Your task to perform on an android device: Open maps Image 0: 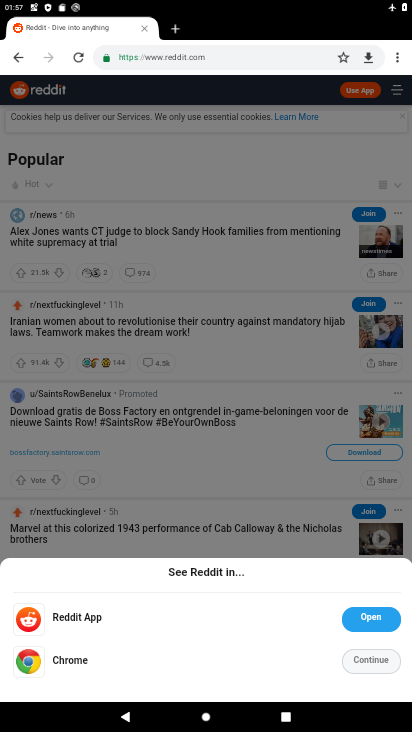
Step 0: press home button
Your task to perform on an android device: Open maps Image 1: 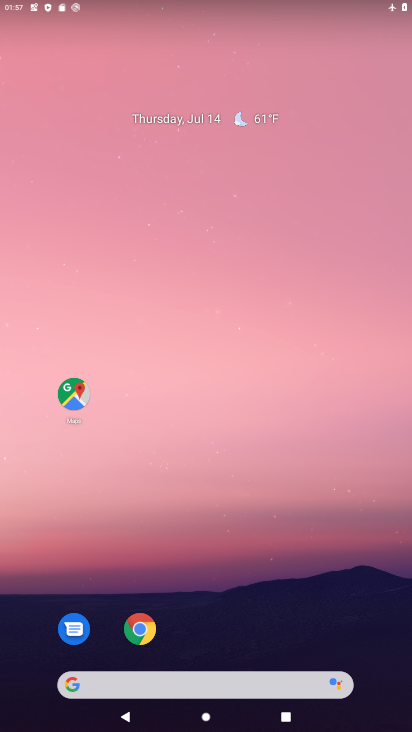
Step 1: click (73, 394)
Your task to perform on an android device: Open maps Image 2: 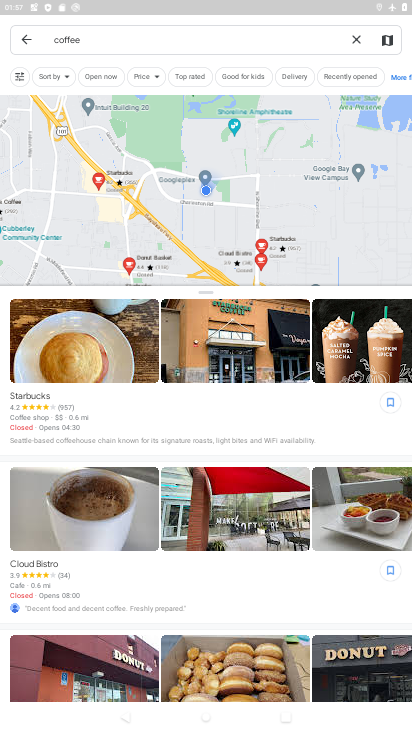
Step 2: task complete